Your task to perform on an android device: What's the weather going to be this weekend? Image 0: 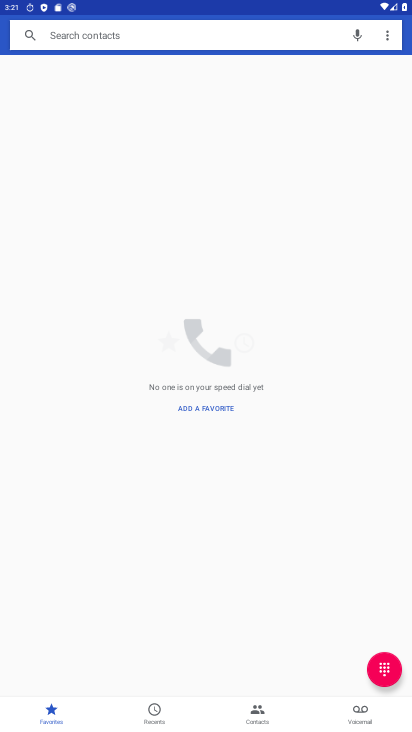
Step 0: press home button
Your task to perform on an android device: What's the weather going to be this weekend? Image 1: 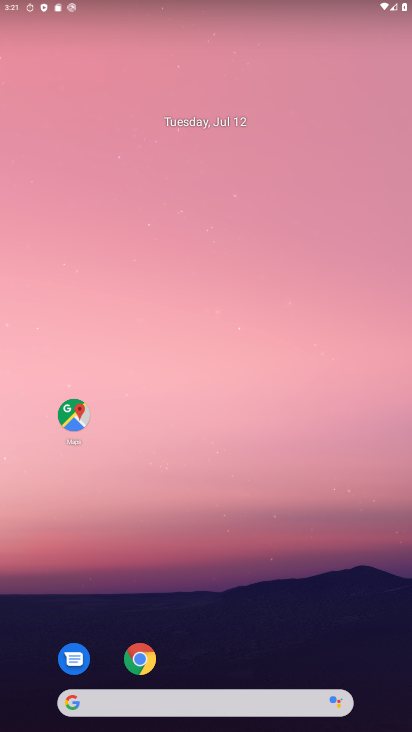
Step 1: drag from (302, 668) to (218, 98)
Your task to perform on an android device: What's the weather going to be this weekend? Image 2: 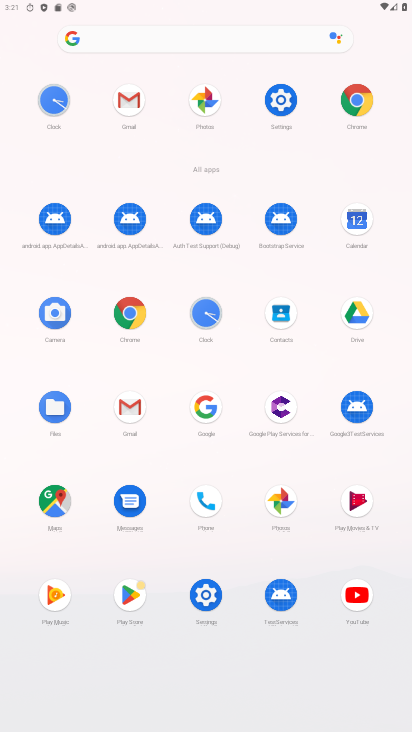
Step 2: click (365, 106)
Your task to perform on an android device: What's the weather going to be this weekend? Image 3: 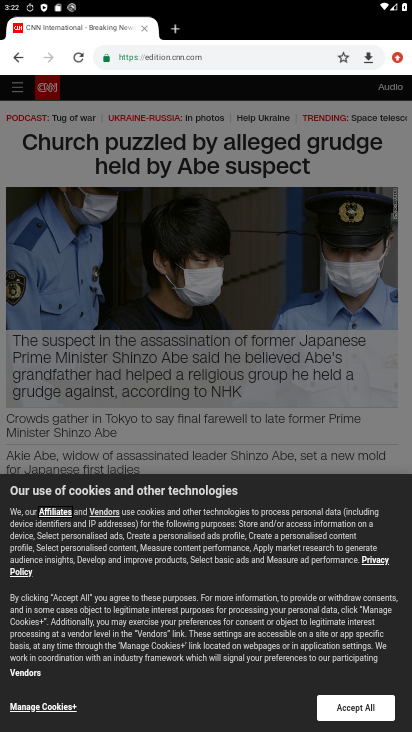
Step 3: click (229, 64)
Your task to perform on an android device: What's the weather going to be this weekend? Image 4: 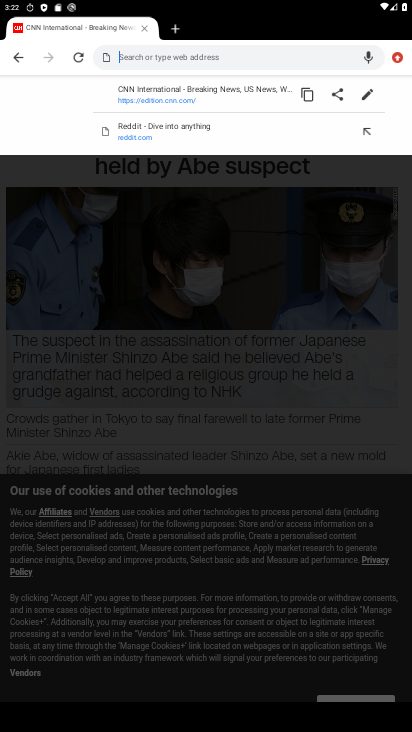
Step 4: type "What's the weather going to be this weekend?"
Your task to perform on an android device: What's the weather going to be this weekend? Image 5: 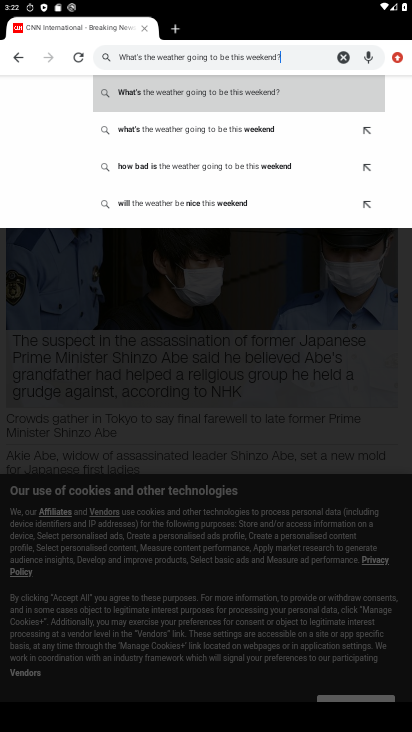
Step 5: click (223, 85)
Your task to perform on an android device: What's the weather going to be this weekend? Image 6: 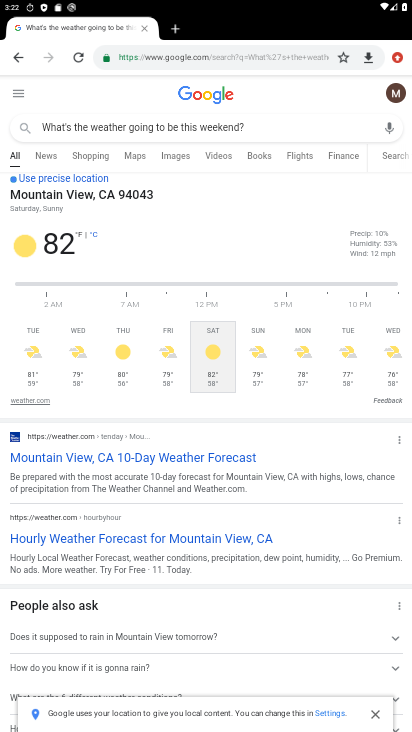
Step 6: task complete